Your task to perform on an android device: check the backup settings in the google photos Image 0: 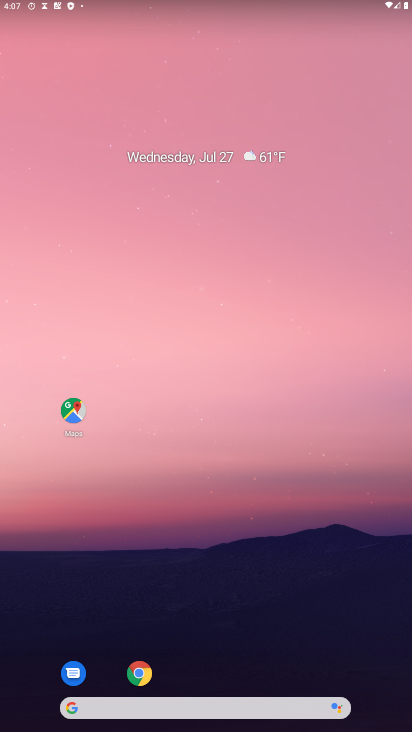
Step 0: drag from (78, 613) to (263, 29)
Your task to perform on an android device: check the backup settings in the google photos Image 1: 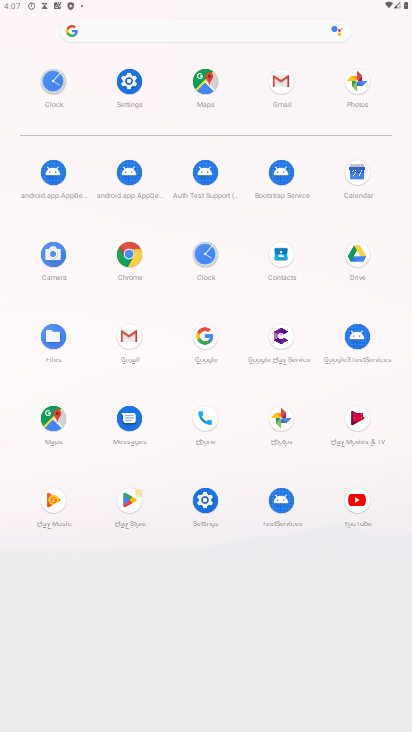
Step 1: click (291, 413)
Your task to perform on an android device: check the backup settings in the google photos Image 2: 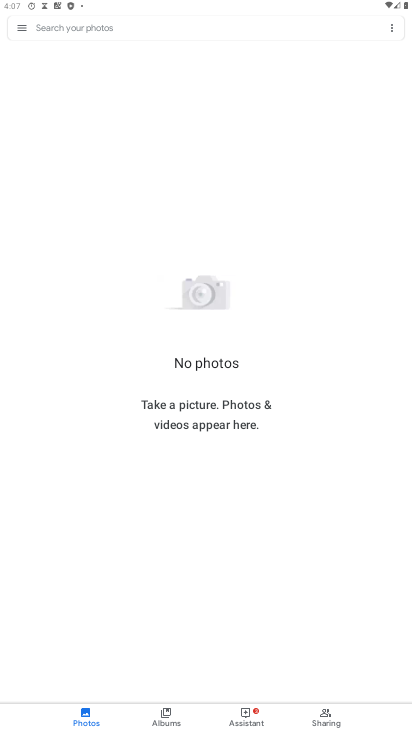
Step 2: click (31, 26)
Your task to perform on an android device: check the backup settings in the google photos Image 3: 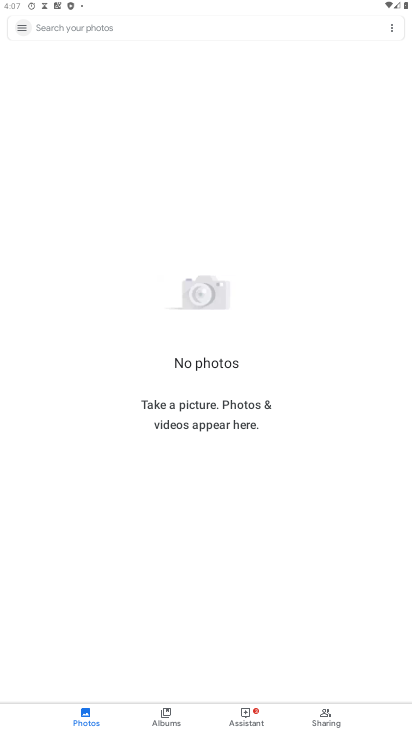
Step 3: click (25, 22)
Your task to perform on an android device: check the backup settings in the google photos Image 4: 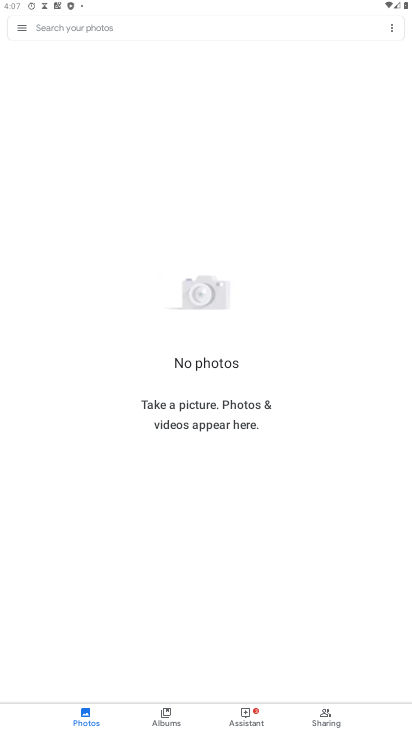
Step 4: click (24, 26)
Your task to perform on an android device: check the backup settings in the google photos Image 5: 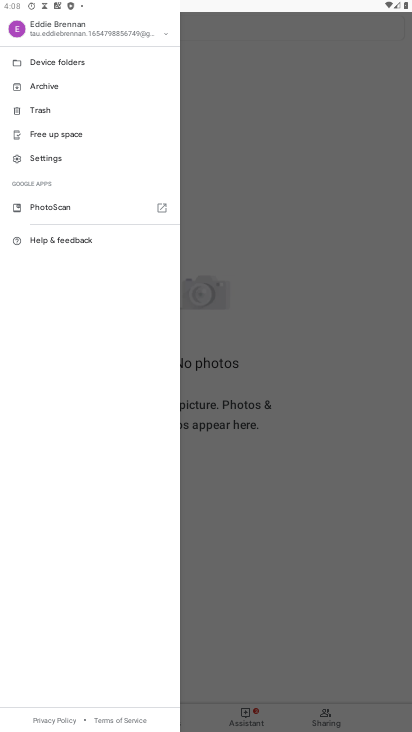
Step 5: click (50, 152)
Your task to perform on an android device: check the backup settings in the google photos Image 6: 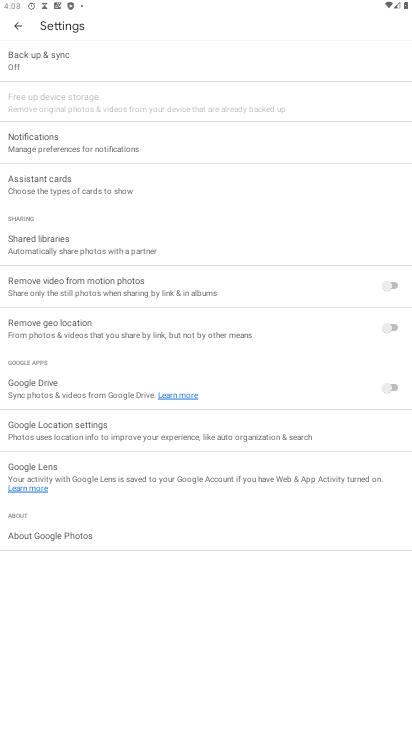
Step 6: click (65, 61)
Your task to perform on an android device: check the backup settings in the google photos Image 7: 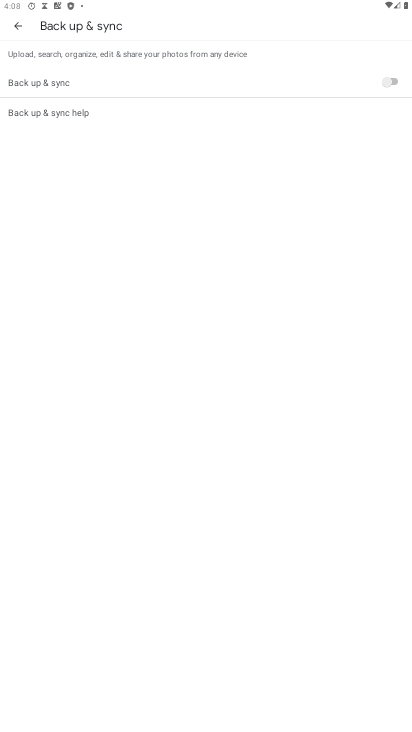
Step 7: task complete